Your task to perform on an android device: turn off smart reply in the gmail app Image 0: 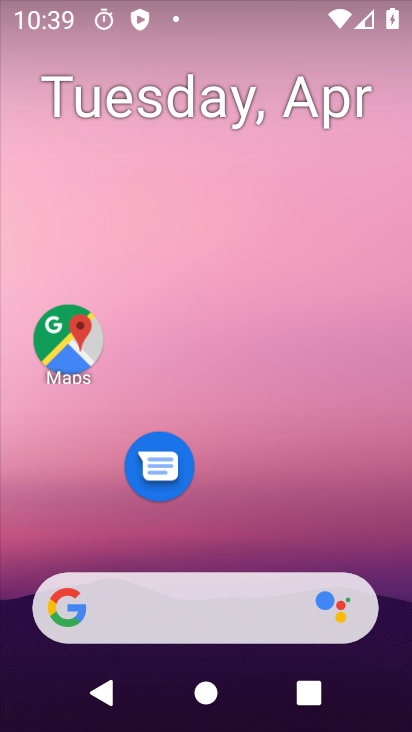
Step 0: drag from (354, 503) to (247, 180)
Your task to perform on an android device: turn off smart reply in the gmail app Image 1: 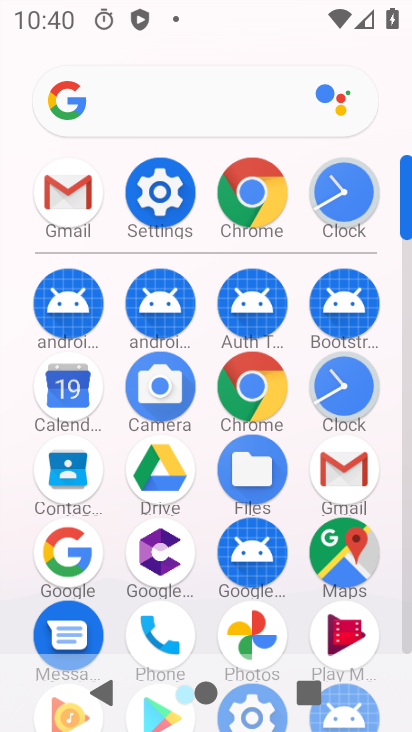
Step 1: click (348, 460)
Your task to perform on an android device: turn off smart reply in the gmail app Image 2: 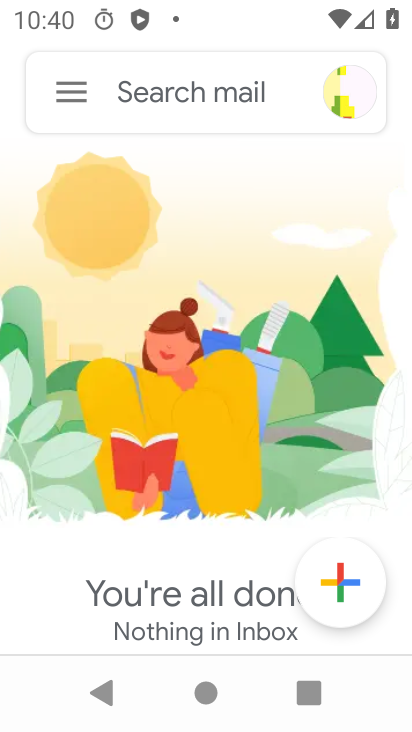
Step 2: click (77, 92)
Your task to perform on an android device: turn off smart reply in the gmail app Image 3: 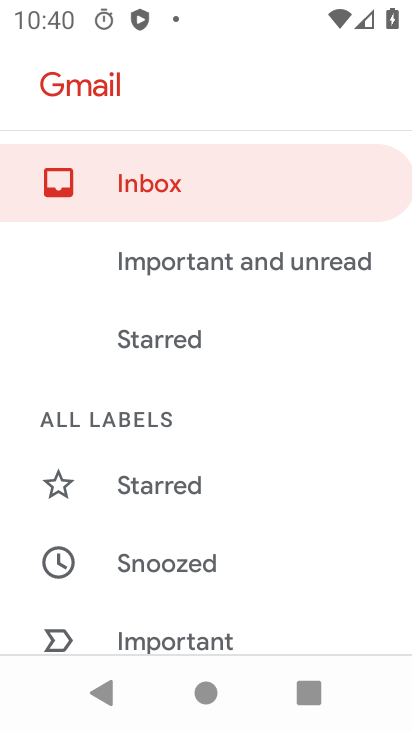
Step 3: drag from (158, 614) to (198, 145)
Your task to perform on an android device: turn off smart reply in the gmail app Image 4: 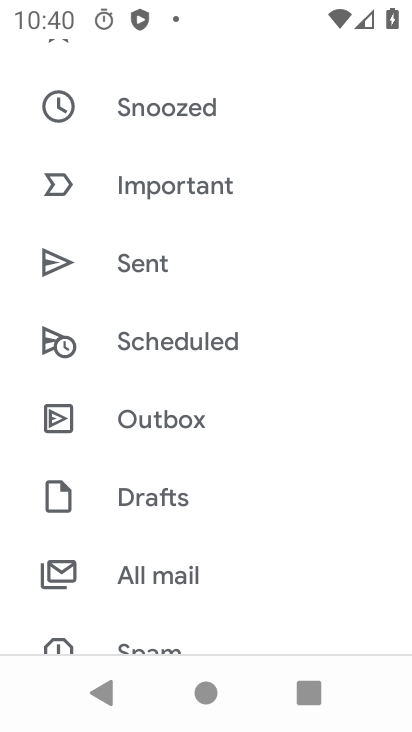
Step 4: drag from (216, 574) to (239, 340)
Your task to perform on an android device: turn off smart reply in the gmail app Image 5: 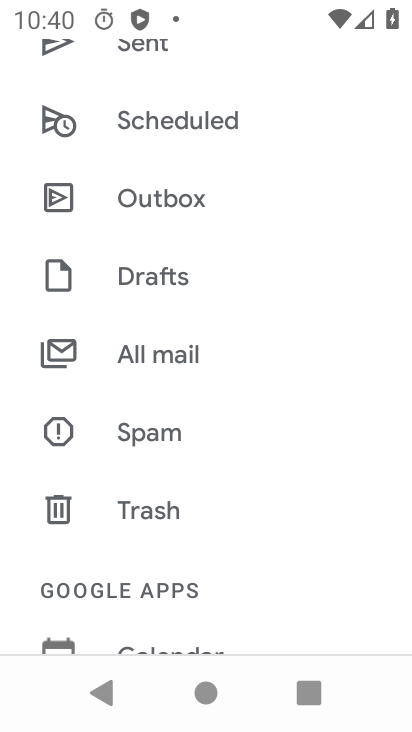
Step 5: drag from (239, 569) to (243, 367)
Your task to perform on an android device: turn off smart reply in the gmail app Image 6: 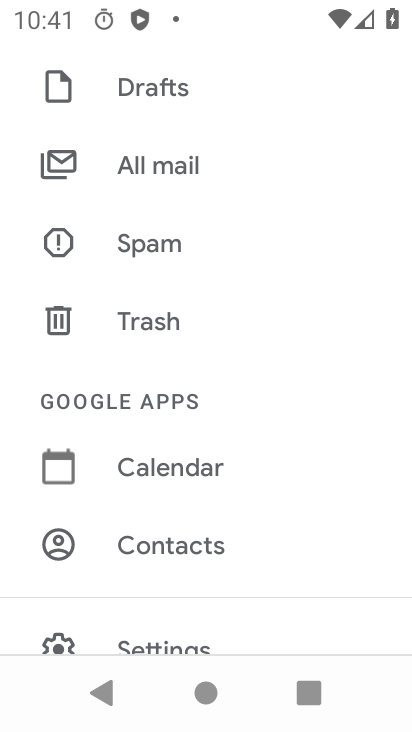
Step 6: drag from (232, 491) to (300, 109)
Your task to perform on an android device: turn off smart reply in the gmail app Image 7: 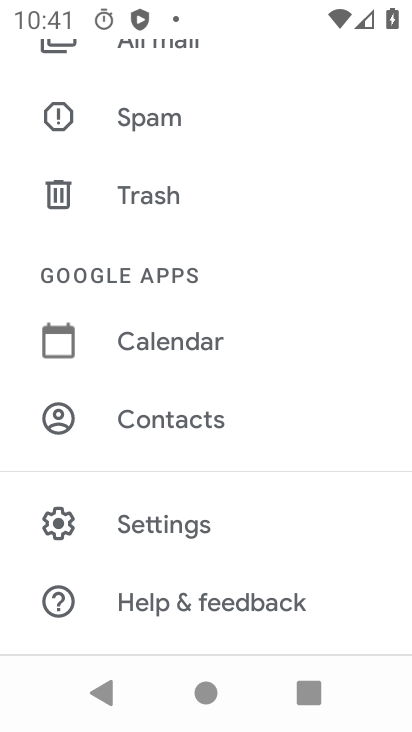
Step 7: click (241, 512)
Your task to perform on an android device: turn off smart reply in the gmail app Image 8: 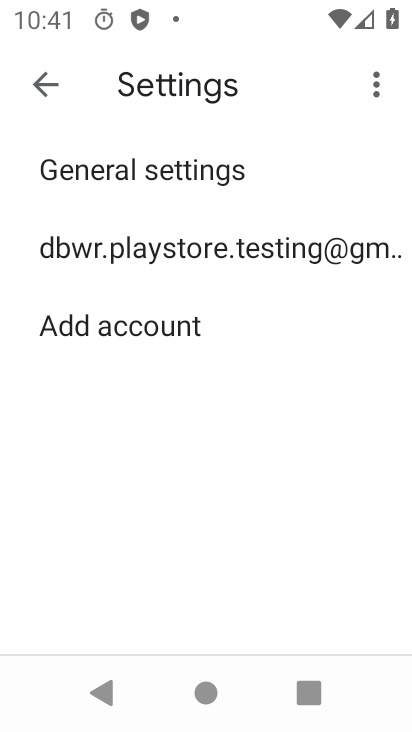
Step 8: click (181, 232)
Your task to perform on an android device: turn off smart reply in the gmail app Image 9: 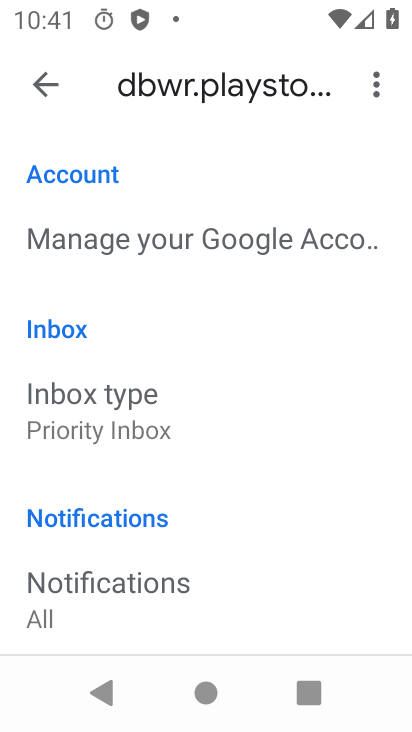
Step 9: drag from (238, 521) to (262, 255)
Your task to perform on an android device: turn off smart reply in the gmail app Image 10: 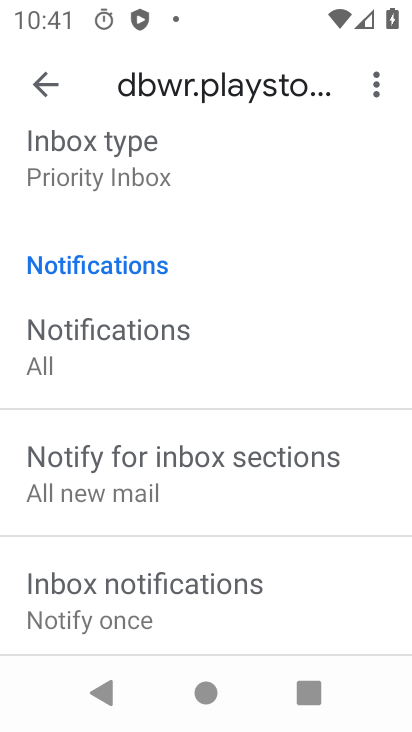
Step 10: drag from (246, 557) to (246, 361)
Your task to perform on an android device: turn off smart reply in the gmail app Image 11: 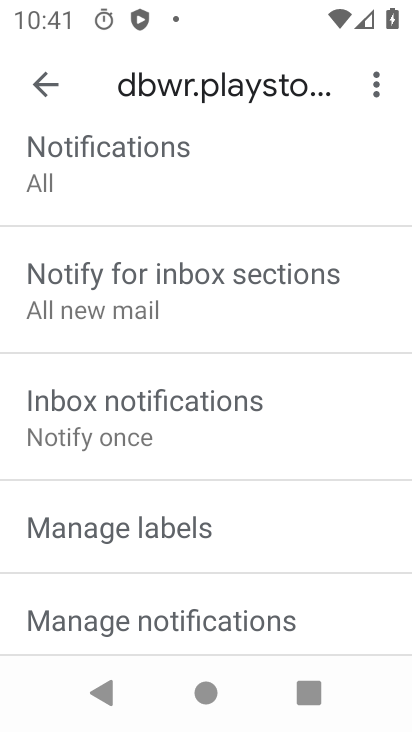
Step 11: drag from (200, 517) to (222, 163)
Your task to perform on an android device: turn off smart reply in the gmail app Image 12: 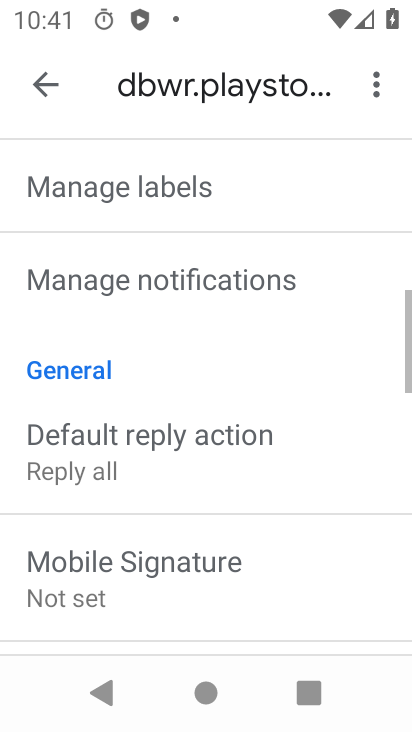
Step 12: drag from (215, 551) to (237, 327)
Your task to perform on an android device: turn off smart reply in the gmail app Image 13: 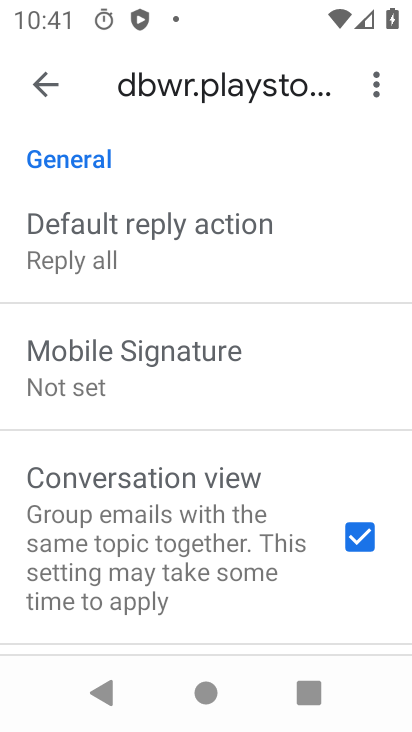
Step 13: drag from (240, 404) to (243, 316)
Your task to perform on an android device: turn off smart reply in the gmail app Image 14: 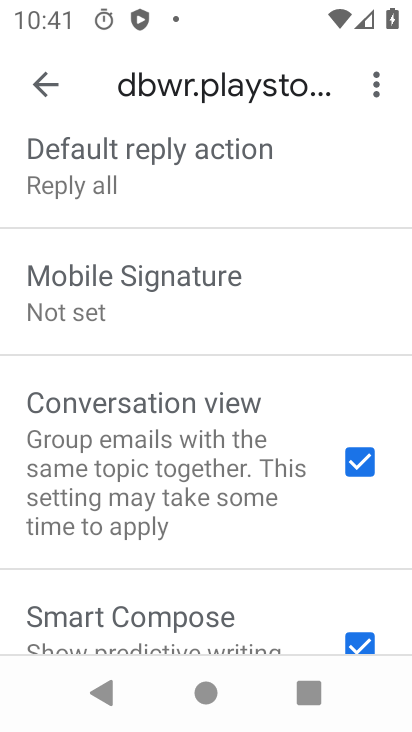
Step 14: drag from (206, 500) to (221, 290)
Your task to perform on an android device: turn off smart reply in the gmail app Image 15: 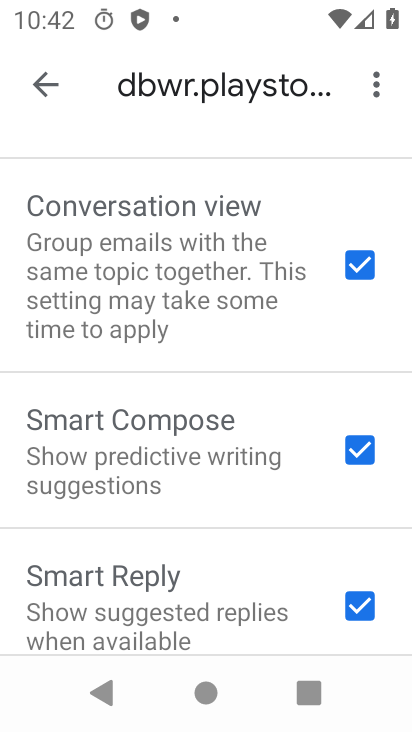
Step 15: click (344, 607)
Your task to perform on an android device: turn off smart reply in the gmail app Image 16: 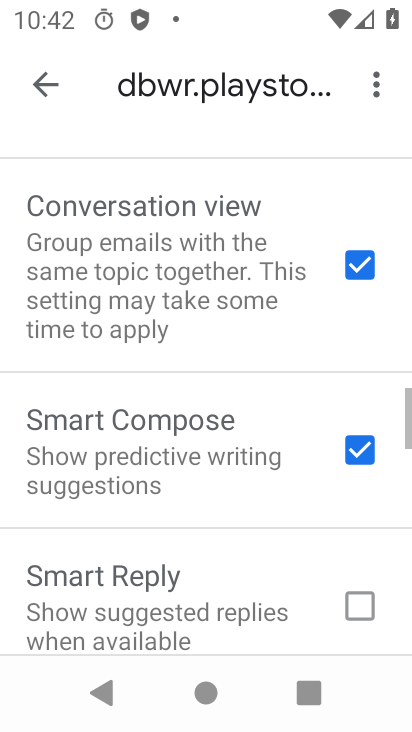
Step 16: task complete